Your task to perform on an android device: turn off sleep mode Image 0: 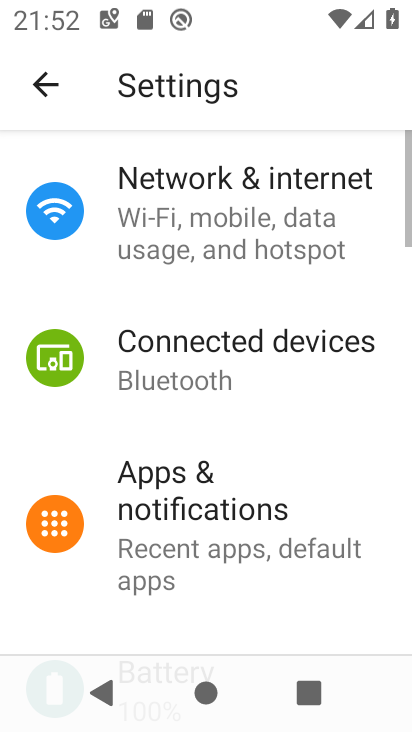
Step 0: press home button
Your task to perform on an android device: turn off sleep mode Image 1: 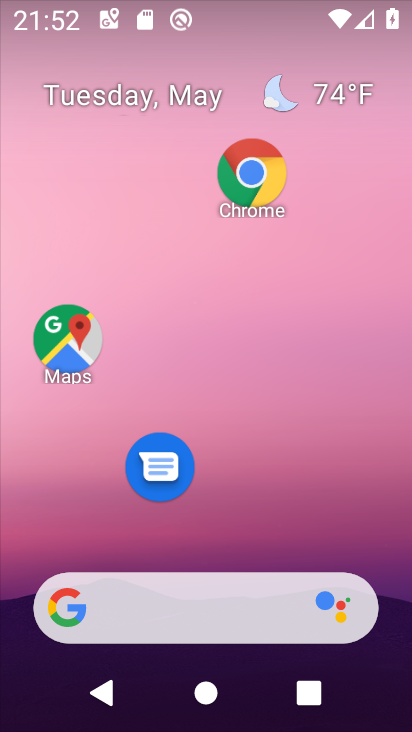
Step 1: drag from (341, 518) to (339, 116)
Your task to perform on an android device: turn off sleep mode Image 2: 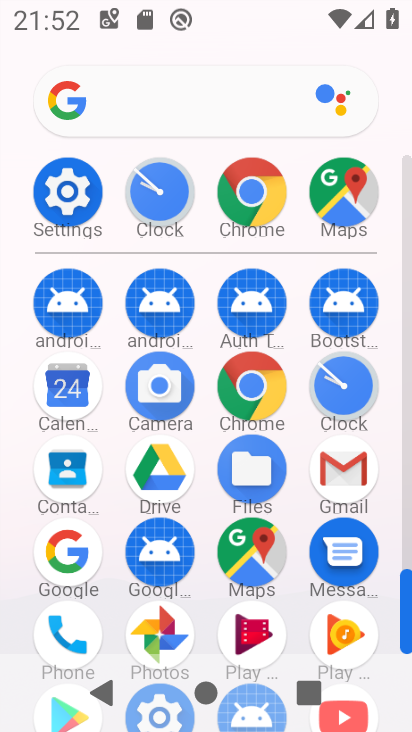
Step 2: click (53, 205)
Your task to perform on an android device: turn off sleep mode Image 3: 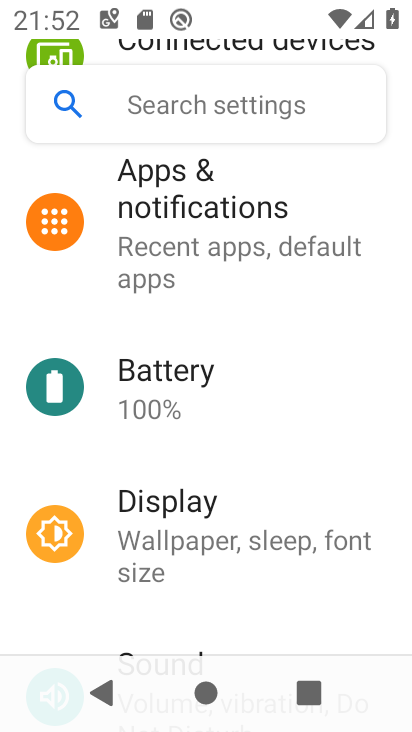
Step 3: click (206, 98)
Your task to perform on an android device: turn off sleep mode Image 4: 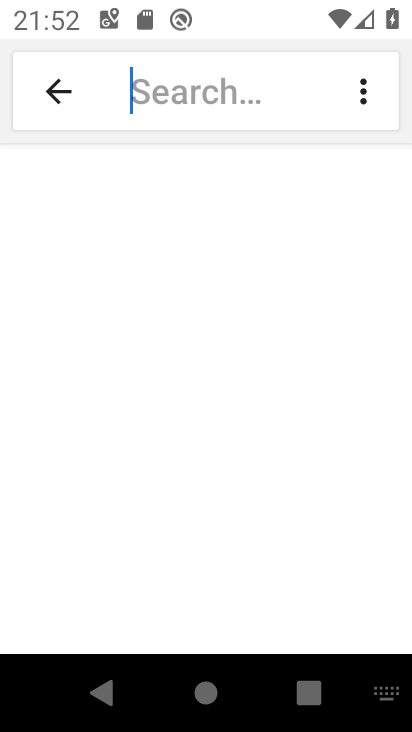
Step 4: type "sleep mode"
Your task to perform on an android device: turn off sleep mode Image 5: 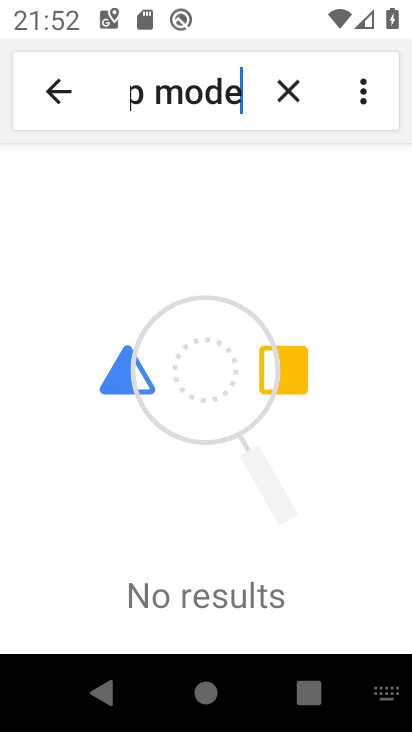
Step 5: task complete